Your task to perform on an android device: turn notification dots on Image 0: 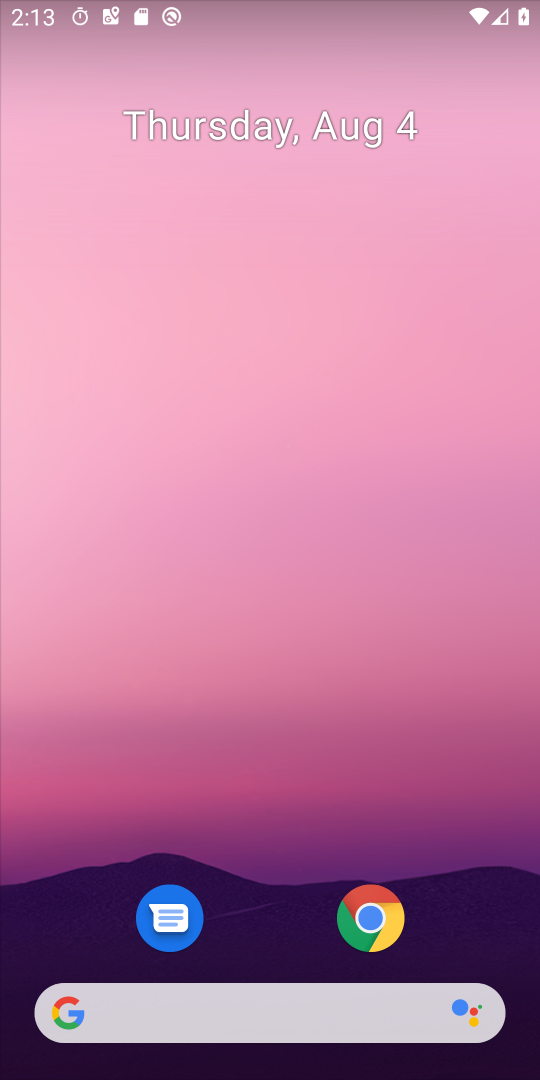
Step 0: drag from (248, 952) to (275, 406)
Your task to perform on an android device: turn notification dots on Image 1: 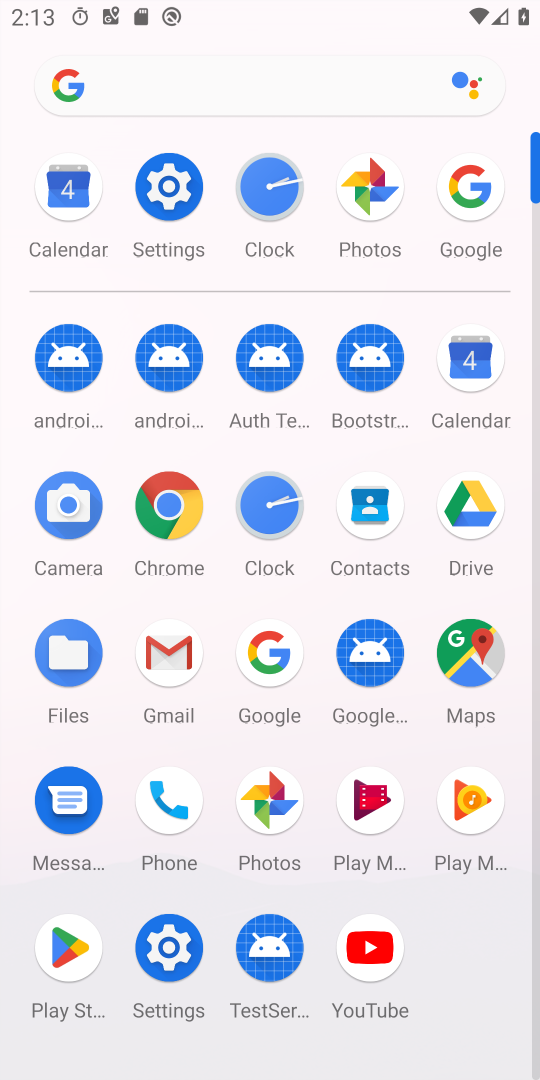
Step 1: click (181, 199)
Your task to perform on an android device: turn notification dots on Image 2: 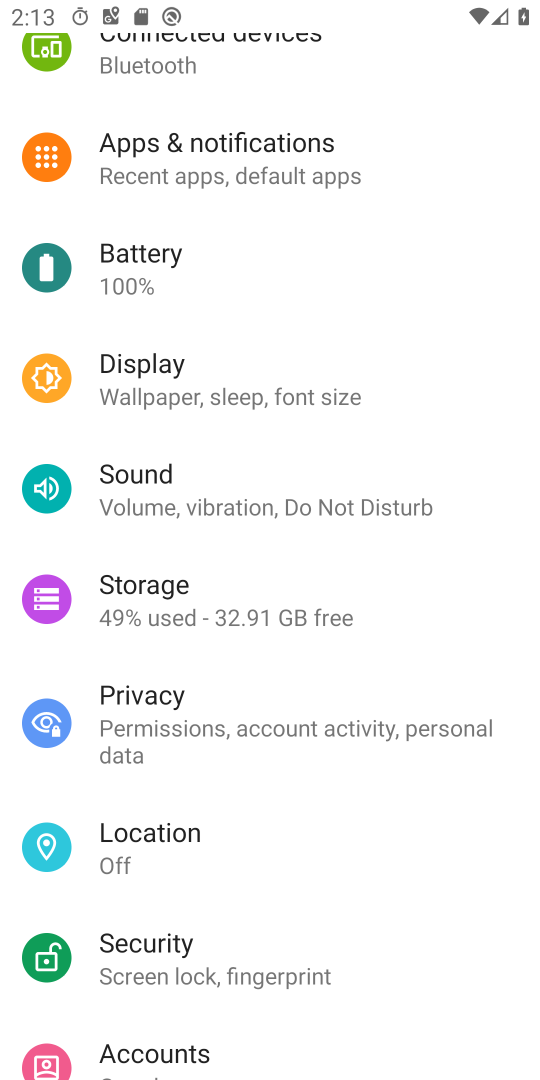
Step 2: click (266, 185)
Your task to perform on an android device: turn notification dots on Image 3: 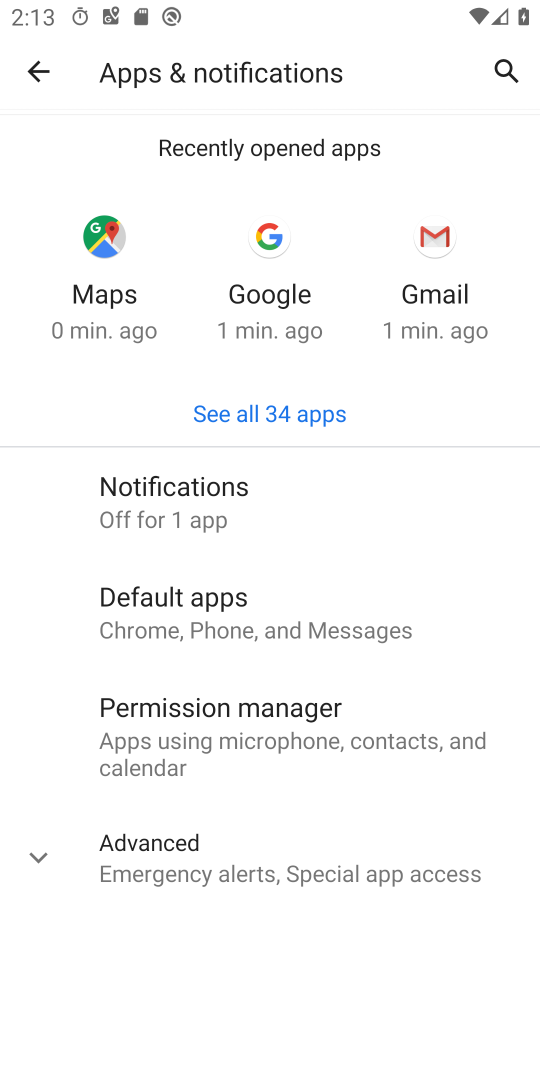
Step 3: click (228, 528)
Your task to perform on an android device: turn notification dots on Image 4: 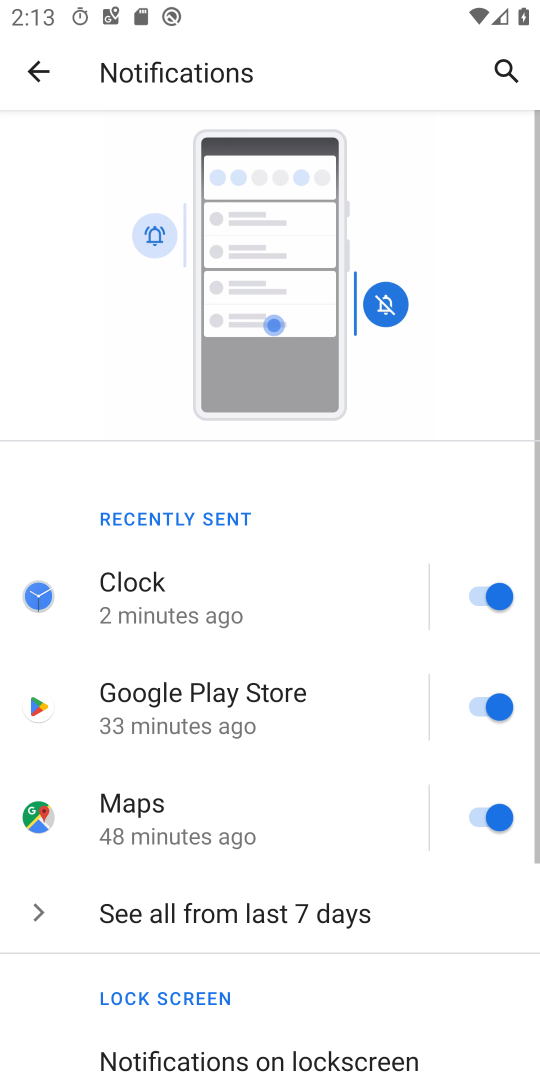
Step 4: drag from (273, 930) to (306, 346)
Your task to perform on an android device: turn notification dots on Image 5: 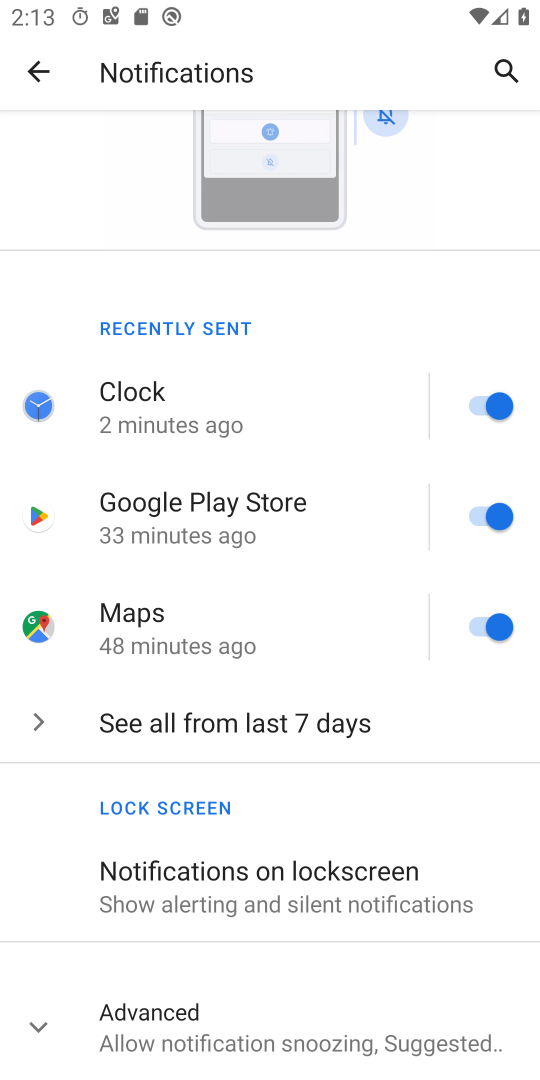
Step 5: drag from (344, 921) to (359, 717)
Your task to perform on an android device: turn notification dots on Image 6: 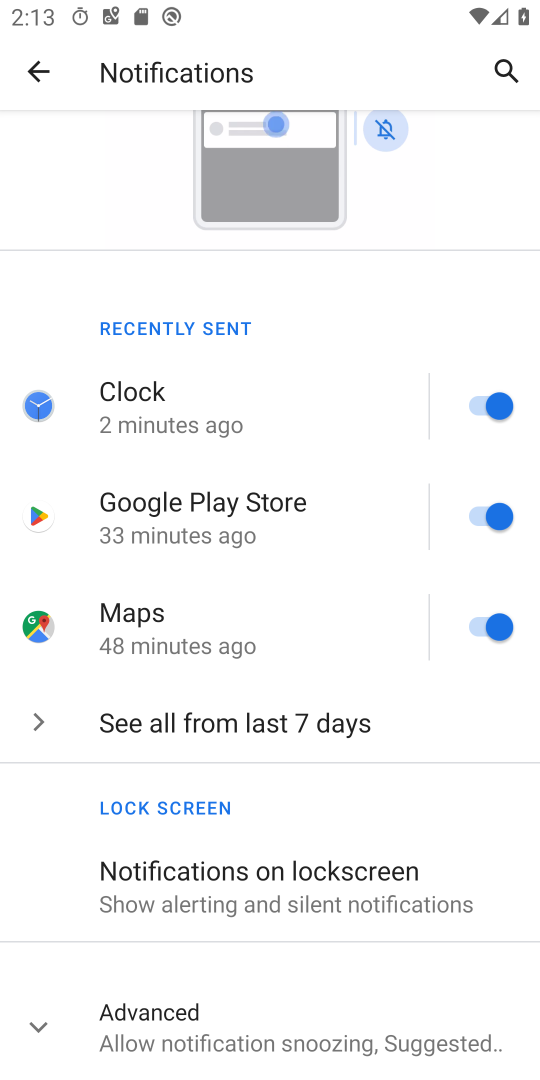
Step 6: click (306, 1007)
Your task to perform on an android device: turn notification dots on Image 7: 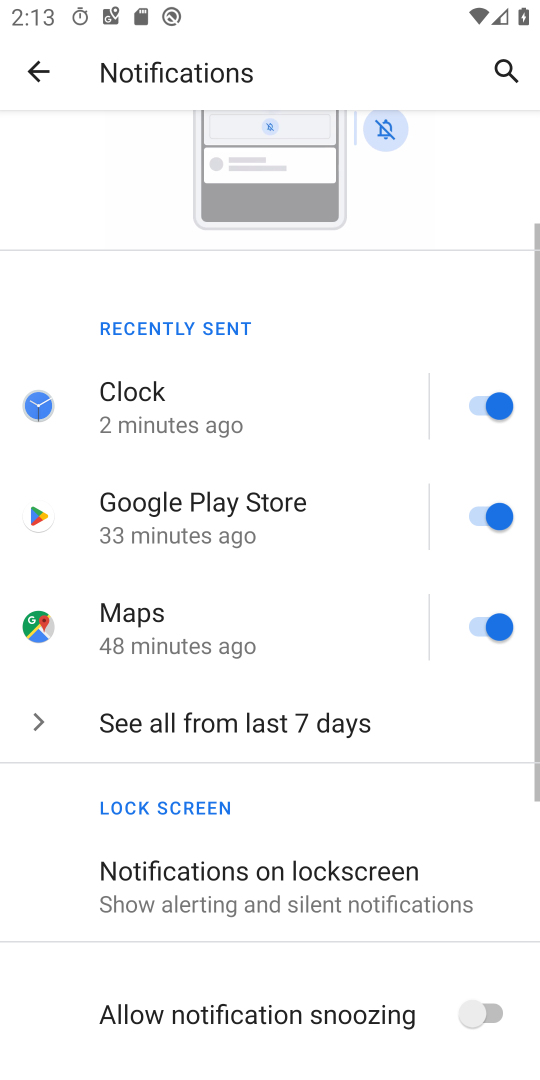
Step 7: task complete